Your task to perform on an android device: View the shopping cart on newegg.com. Add logitech g pro to the cart on newegg.com, then select checkout. Image 0: 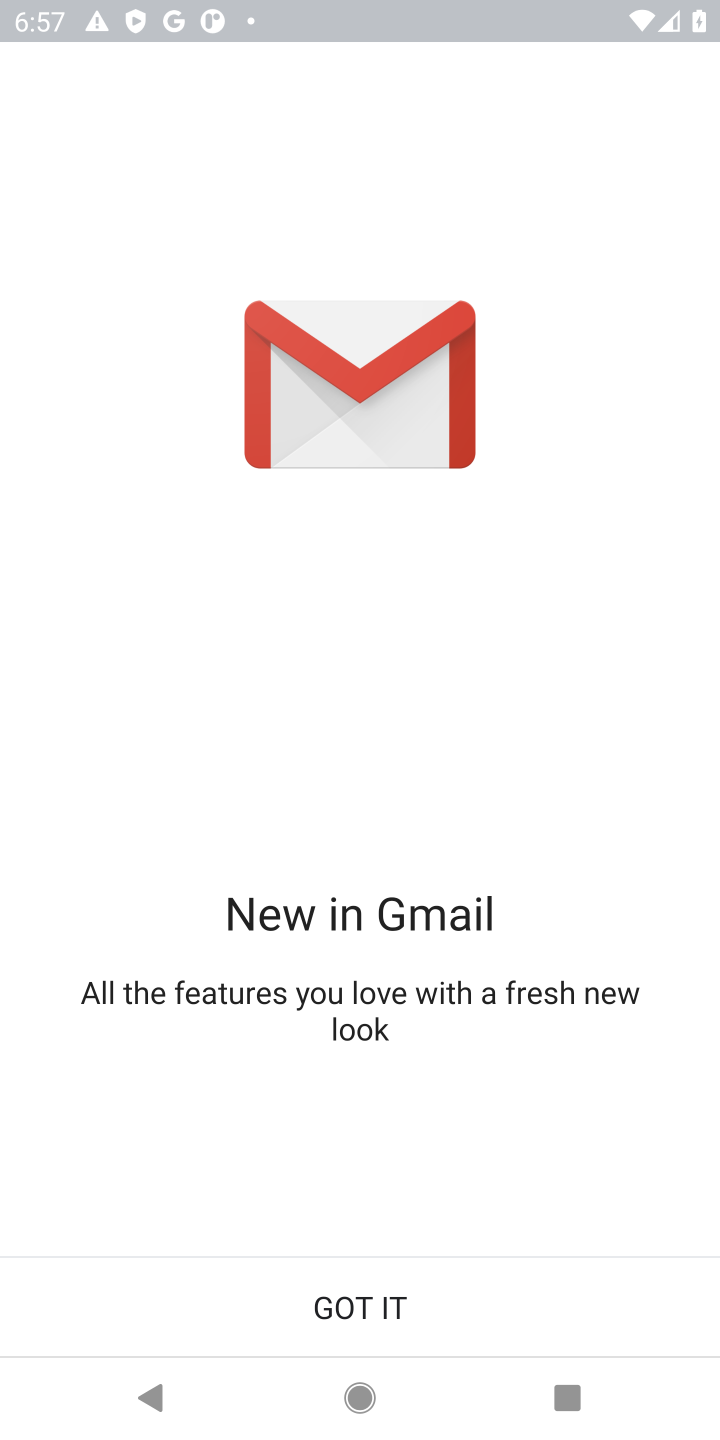
Step 0: press home button
Your task to perform on an android device: View the shopping cart on newegg.com. Add logitech g pro to the cart on newegg.com, then select checkout. Image 1: 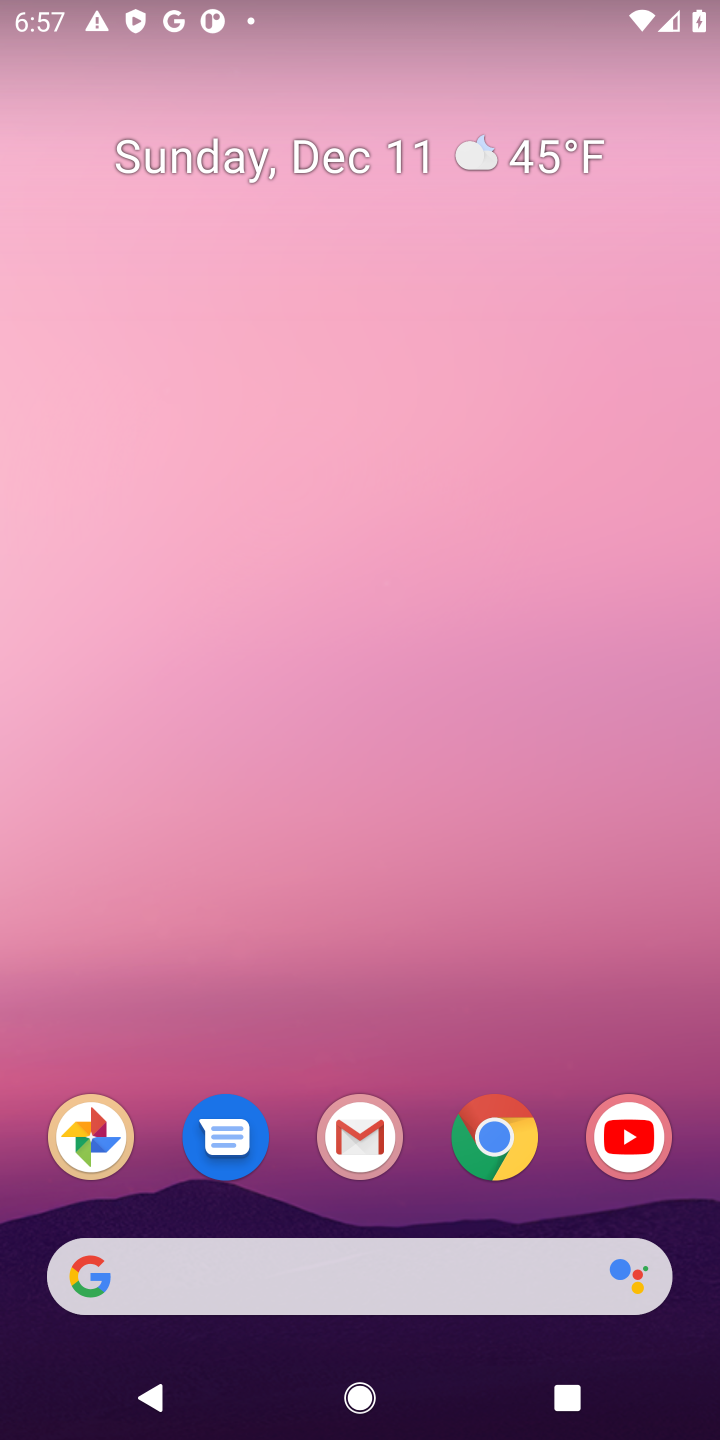
Step 1: click (523, 1144)
Your task to perform on an android device: View the shopping cart on newegg.com. Add logitech g pro to the cart on newegg.com, then select checkout. Image 2: 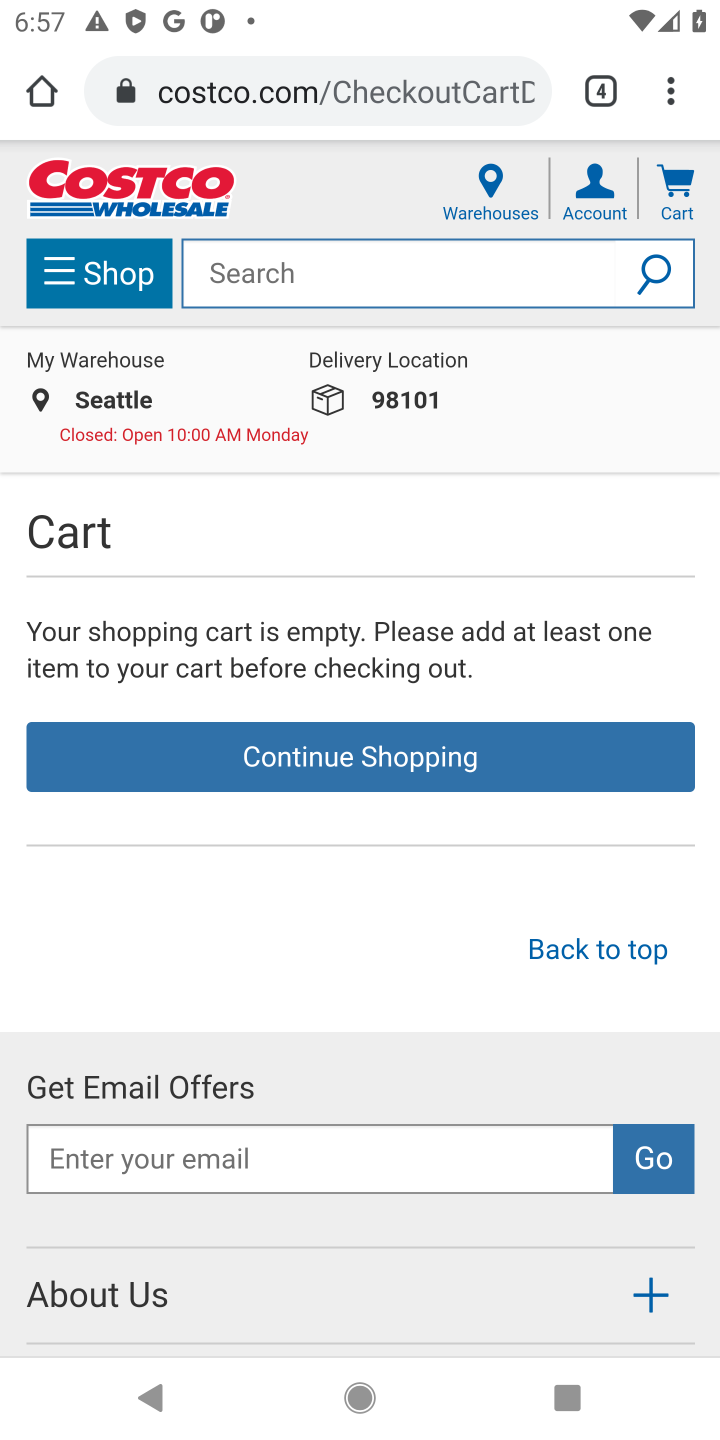
Step 2: click (427, 92)
Your task to perform on an android device: View the shopping cart on newegg.com. Add logitech g pro to the cart on newegg.com, then select checkout. Image 3: 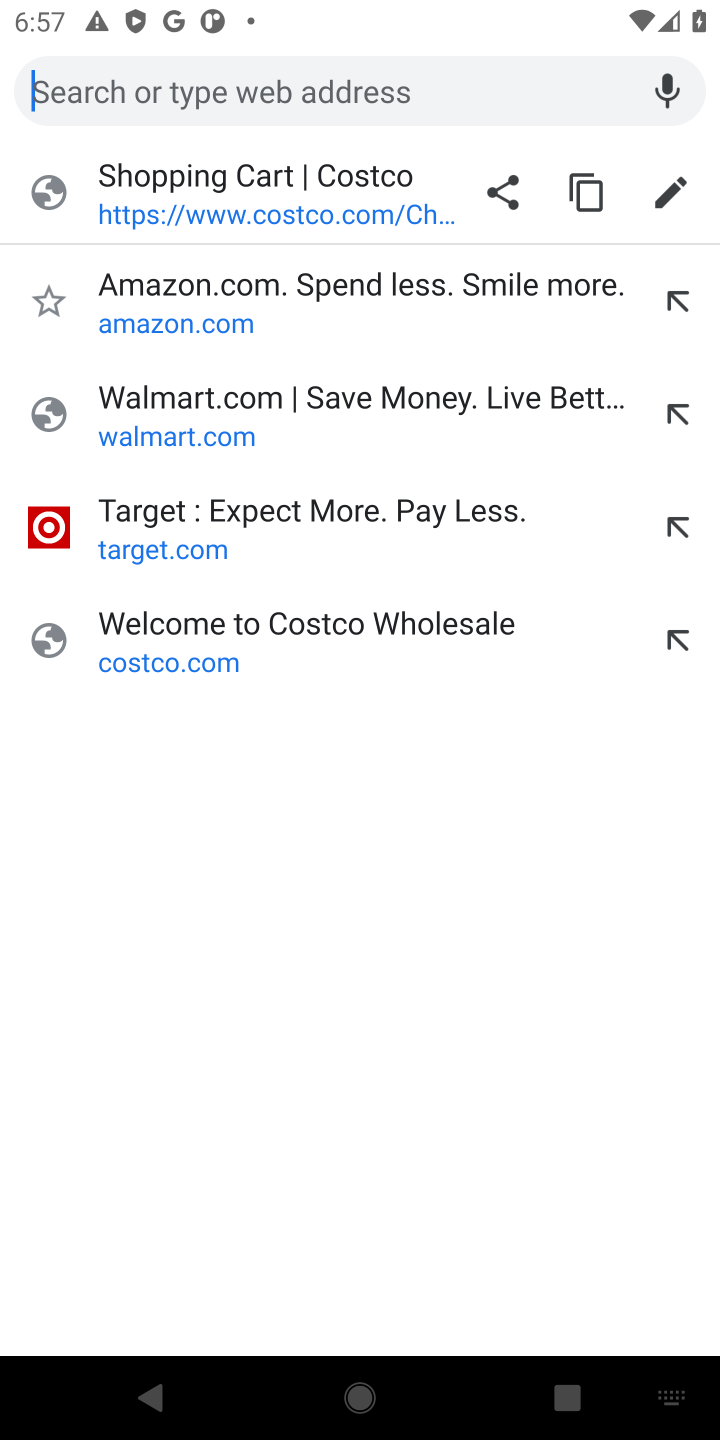
Step 3: click (285, 89)
Your task to perform on an android device: View the shopping cart on newegg.com. Add logitech g pro to the cart on newegg.com, then select checkout. Image 4: 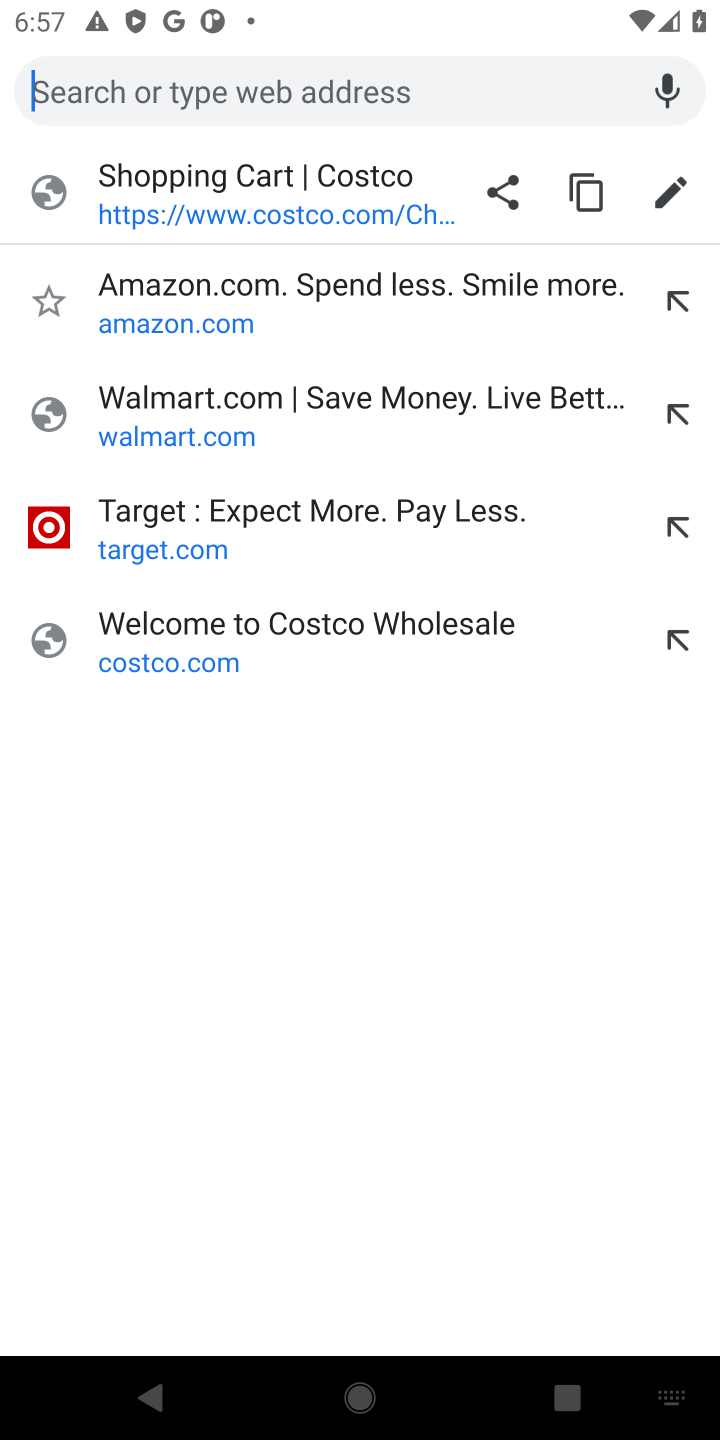
Step 4: type "newegg"
Your task to perform on an android device: View the shopping cart on newegg.com. Add logitech g pro to the cart on newegg.com, then select checkout. Image 5: 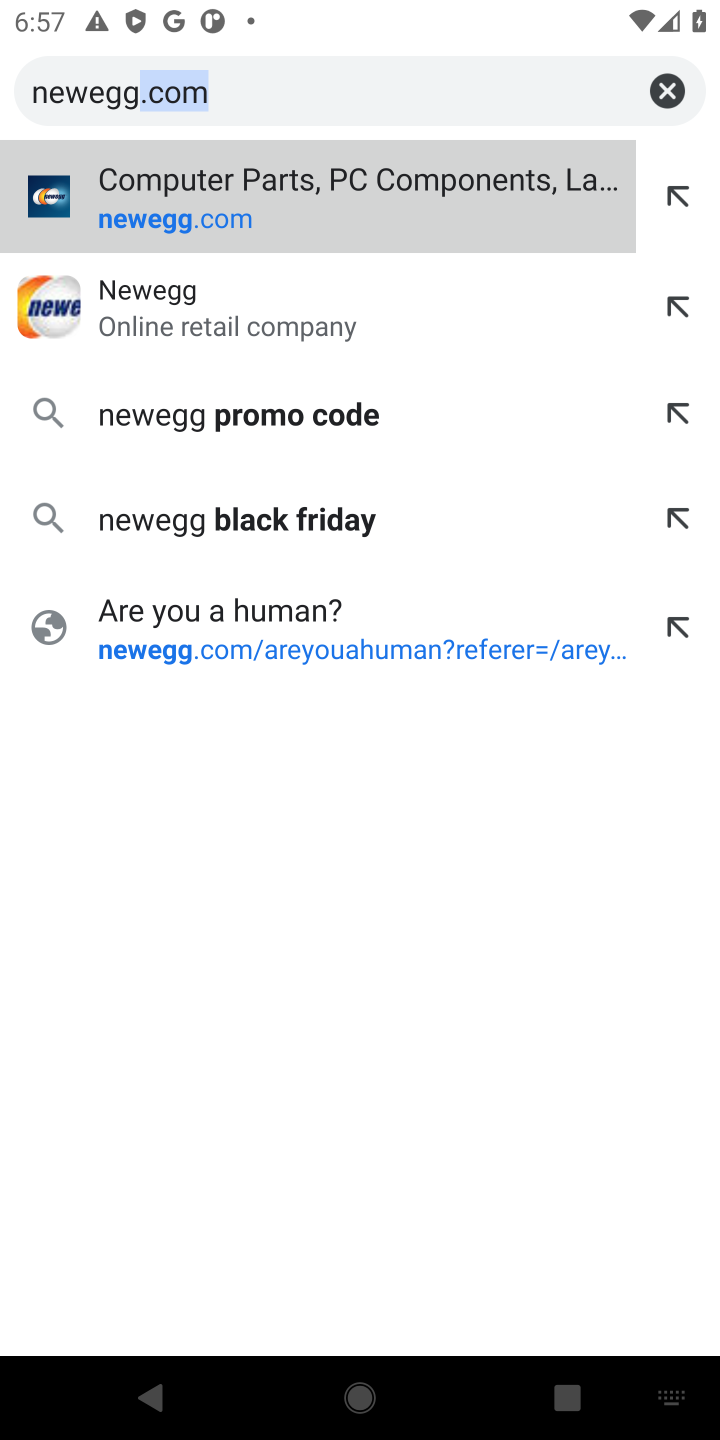
Step 5: click (139, 301)
Your task to perform on an android device: View the shopping cart on newegg.com. Add logitech g pro to the cart on newegg.com, then select checkout. Image 6: 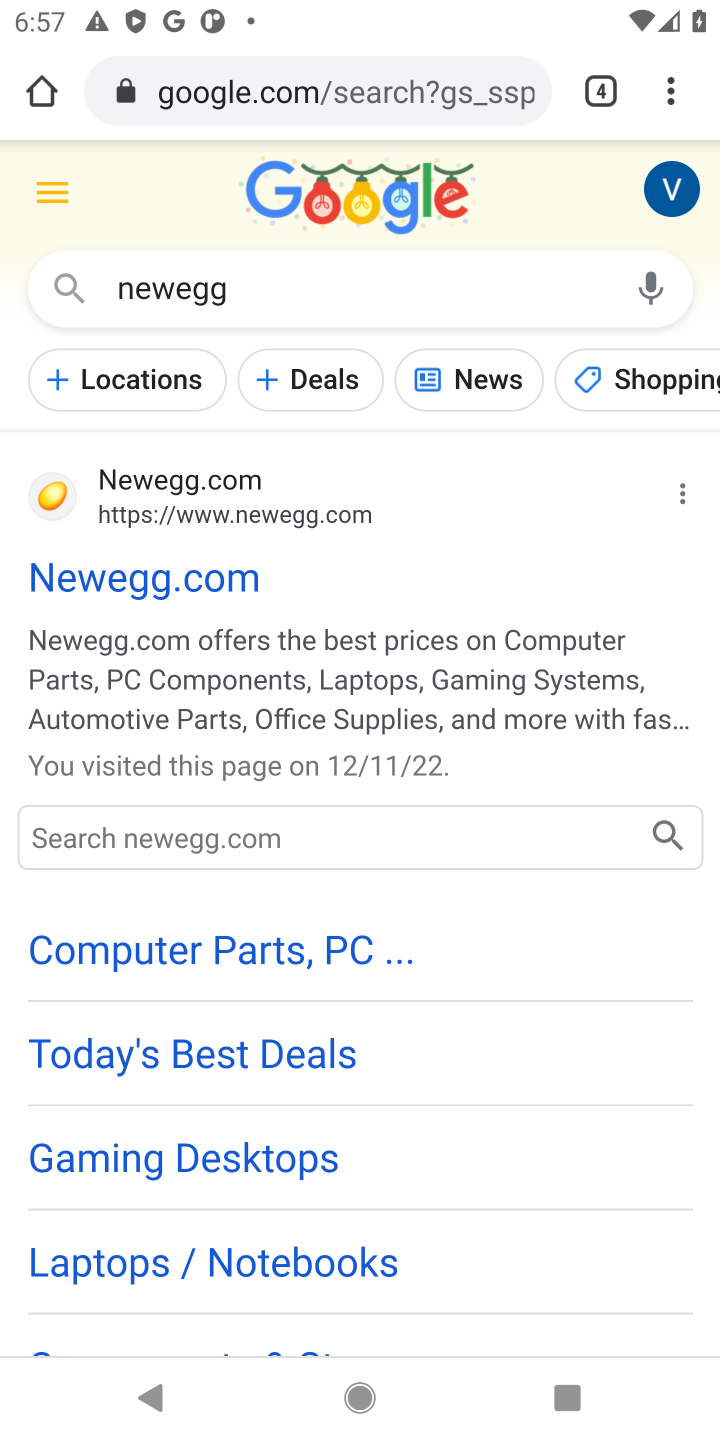
Step 6: click (54, 559)
Your task to perform on an android device: View the shopping cart on newegg.com. Add logitech g pro to the cart on newegg.com, then select checkout. Image 7: 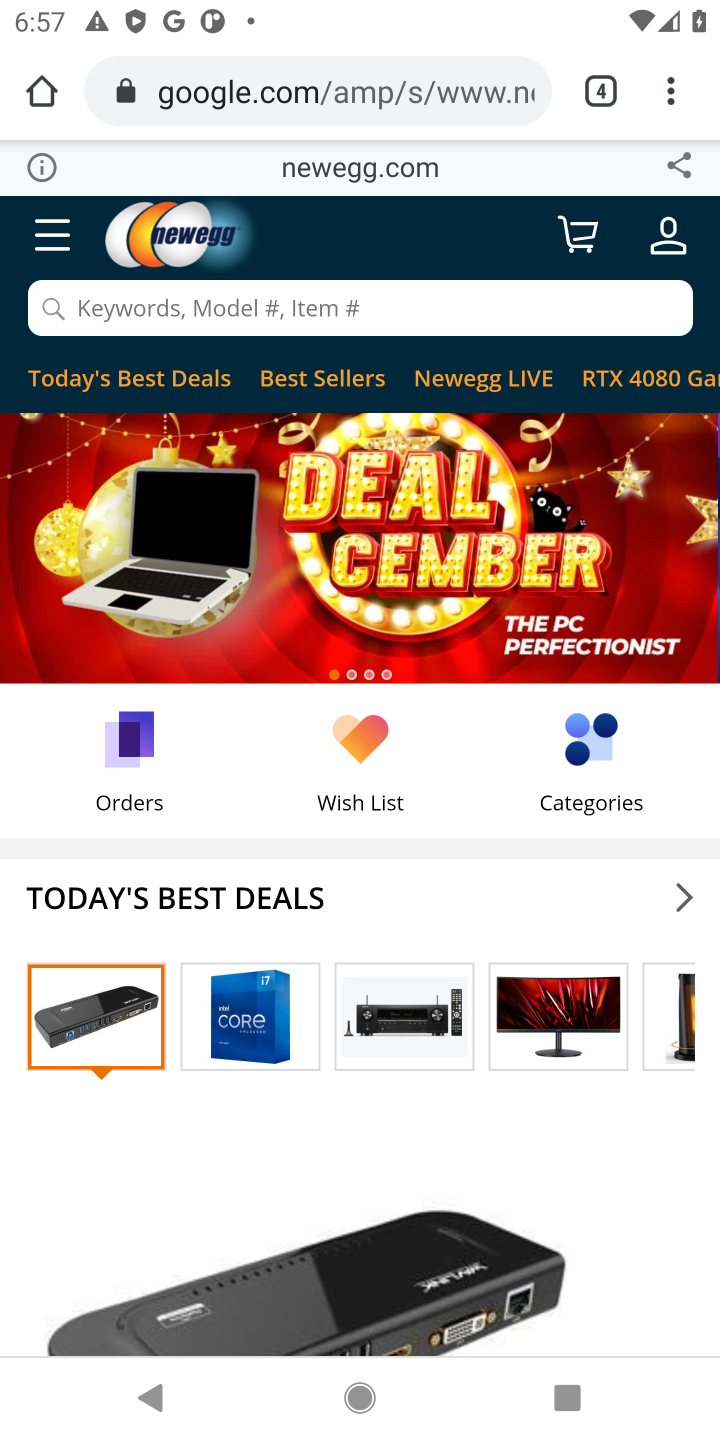
Step 7: click (586, 250)
Your task to perform on an android device: View the shopping cart on newegg.com. Add logitech g pro to the cart on newegg.com, then select checkout. Image 8: 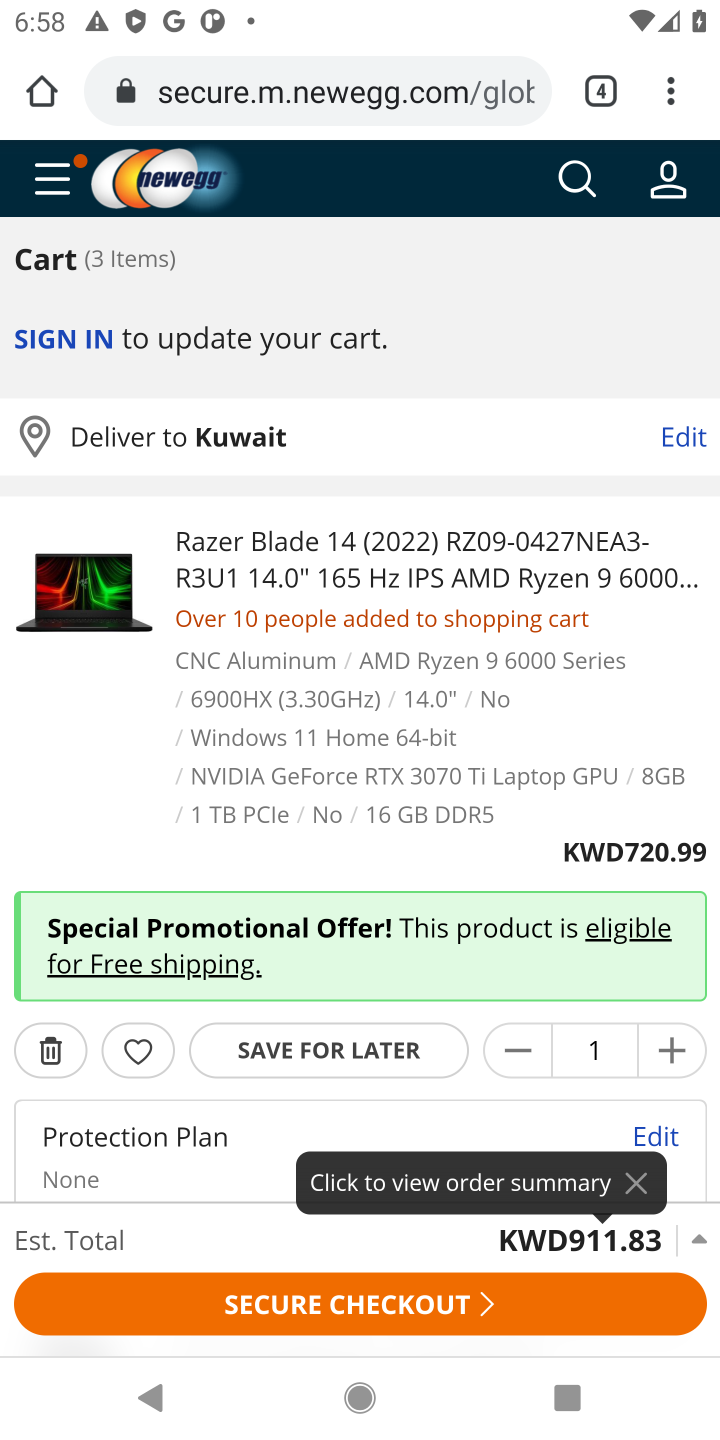
Step 8: click (585, 176)
Your task to perform on an android device: View the shopping cart on newegg.com. Add logitech g pro to the cart on newegg.com, then select checkout. Image 9: 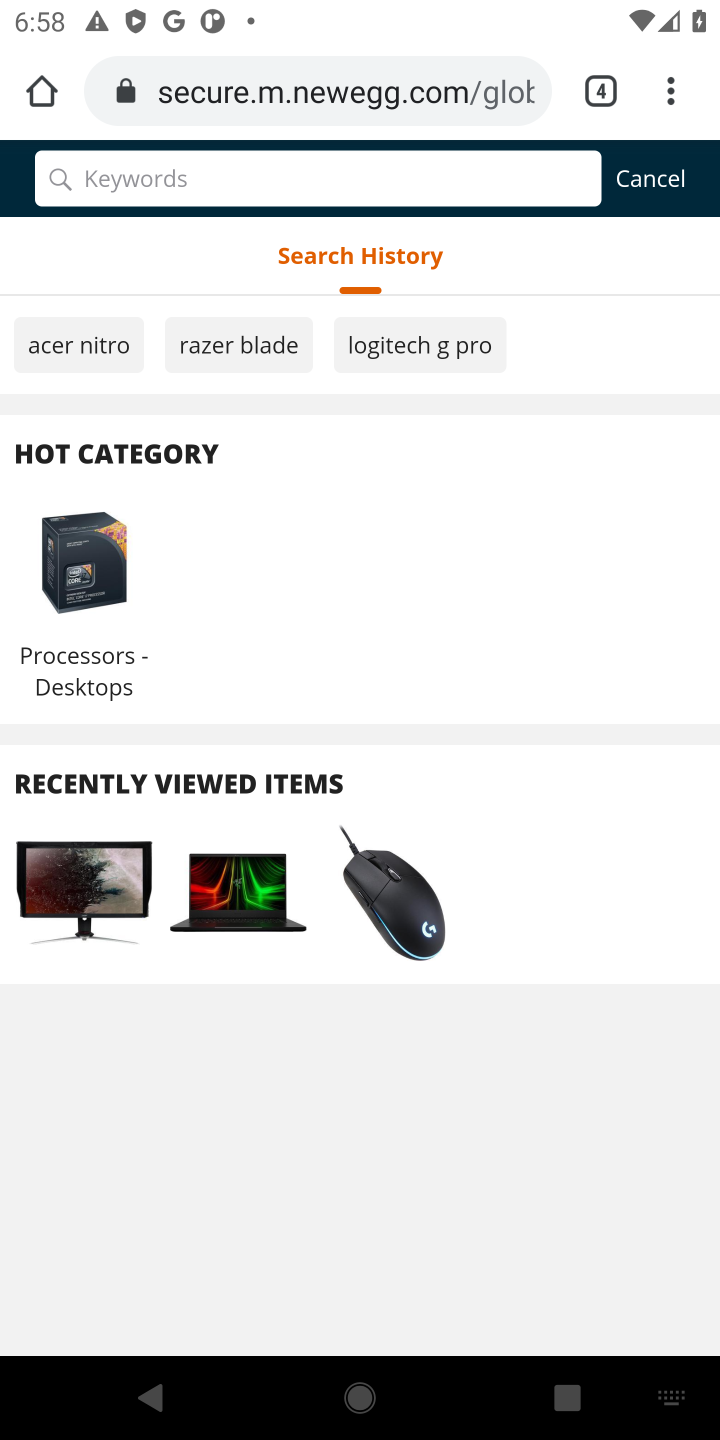
Step 9: type "logitech g pro"
Your task to perform on an android device: View the shopping cart on newegg.com. Add logitech g pro to the cart on newegg.com, then select checkout. Image 10: 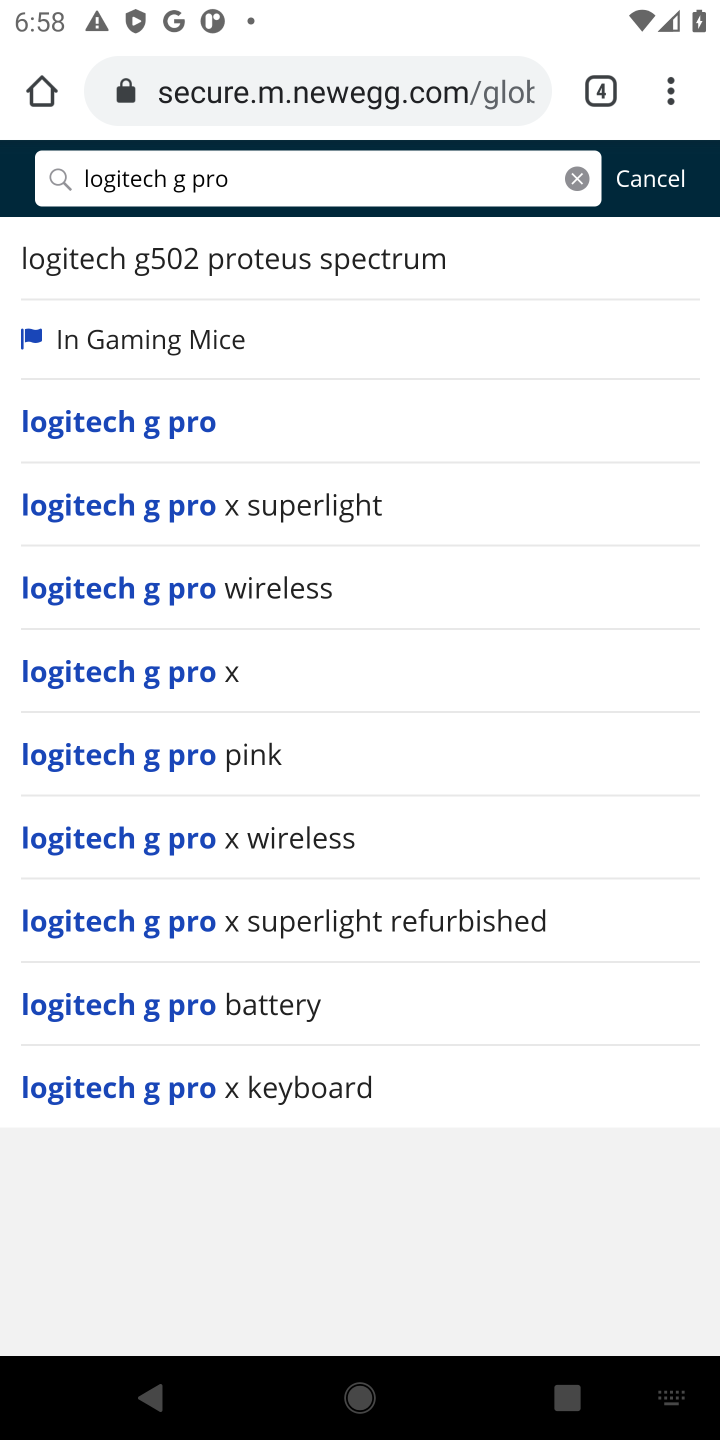
Step 10: click (109, 427)
Your task to perform on an android device: View the shopping cart on newegg.com. Add logitech g pro to the cart on newegg.com, then select checkout. Image 11: 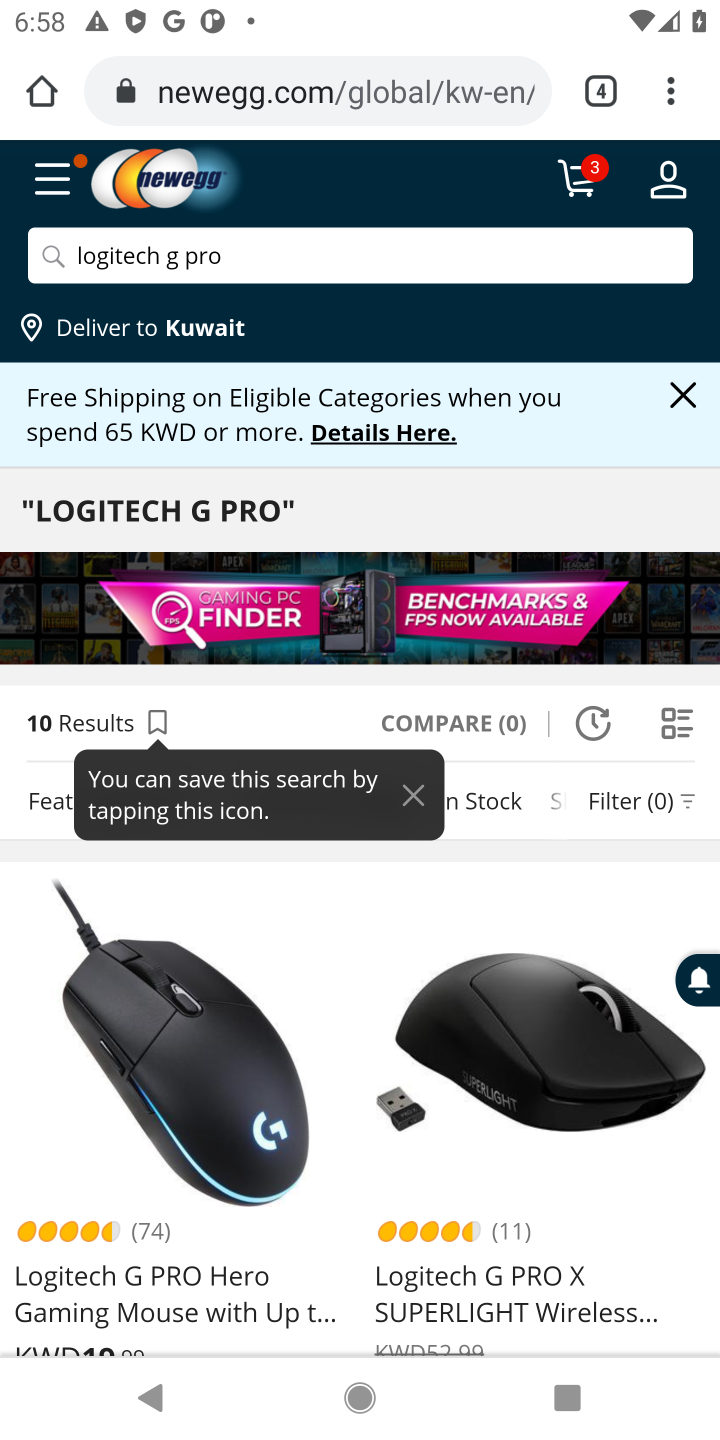
Step 11: click (125, 1182)
Your task to perform on an android device: View the shopping cart on newegg.com. Add logitech g pro to the cart on newegg.com, then select checkout. Image 12: 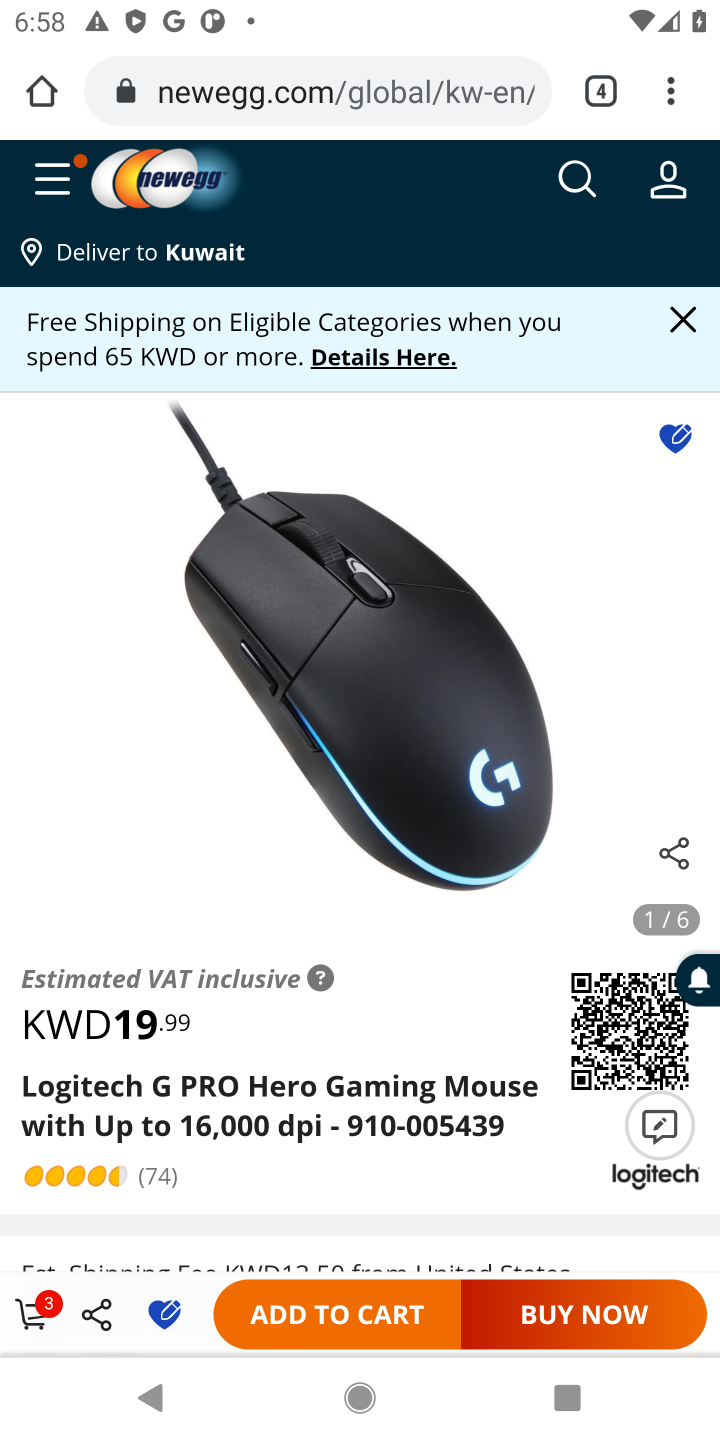
Step 12: click (358, 1304)
Your task to perform on an android device: View the shopping cart on newegg.com. Add logitech g pro to the cart on newegg.com, then select checkout. Image 13: 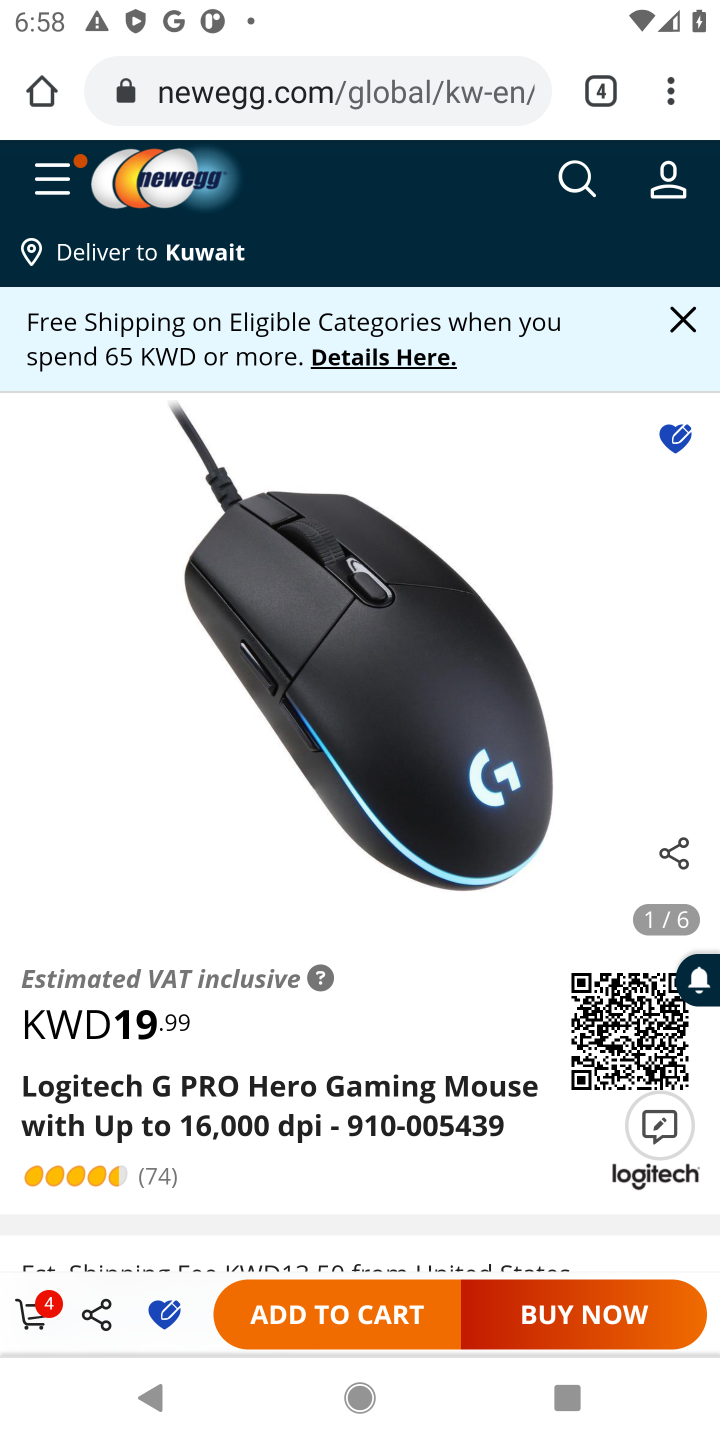
Step 13: click (43, 1305)
Your task to perform on an android device: View the shopping cart on newegg.com. Add logitech g pro to the cart on newegg.com, then select checkout. Image 14: 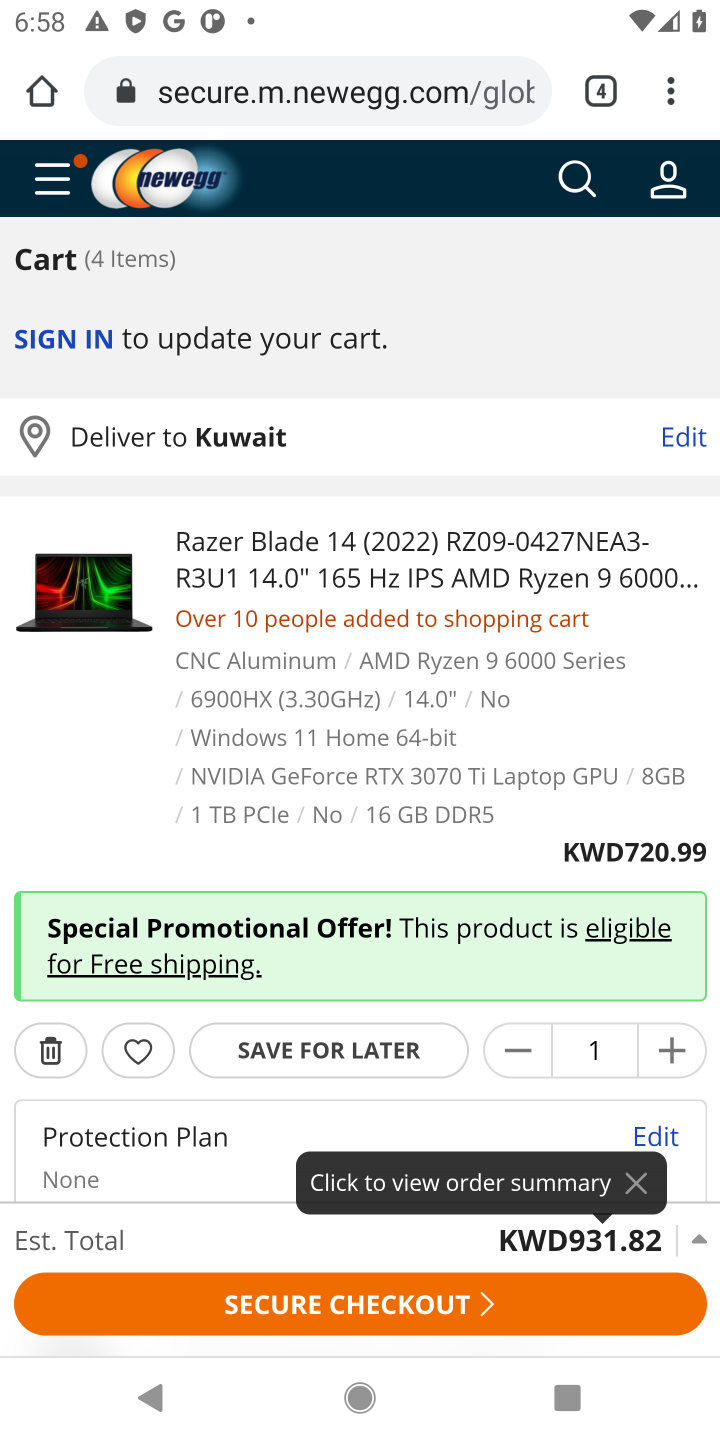
Step 14: click (245, 1313)
Your task to perform on an android device: View the shopping cart on newegg.com. Add logitech g pro to the cart on newegg.com, then select checkout. Image 15: 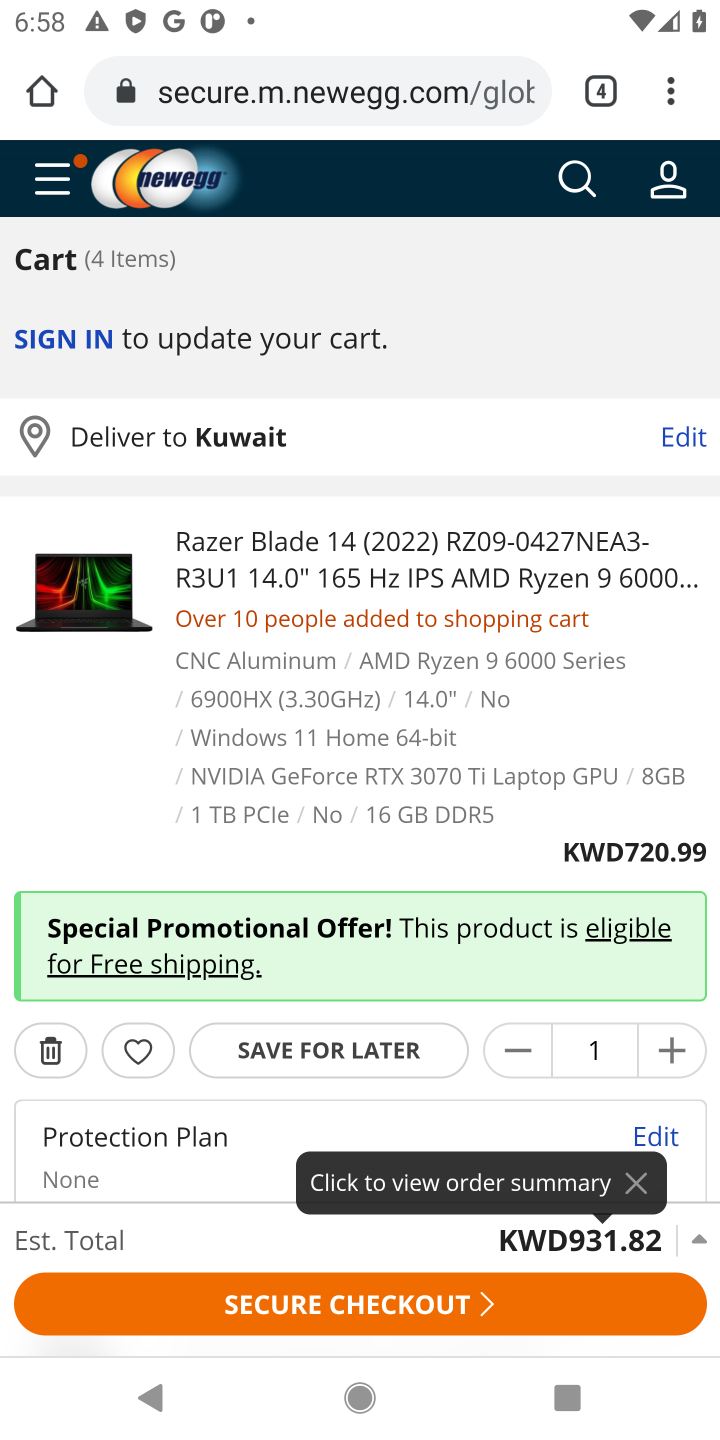
Step 15: click (280, 1299)
Your task to perform on an android device: View the shopping cart on newegg.com. Add logitech g pro to the cart on newegg.com, then select checkout. Image 16: 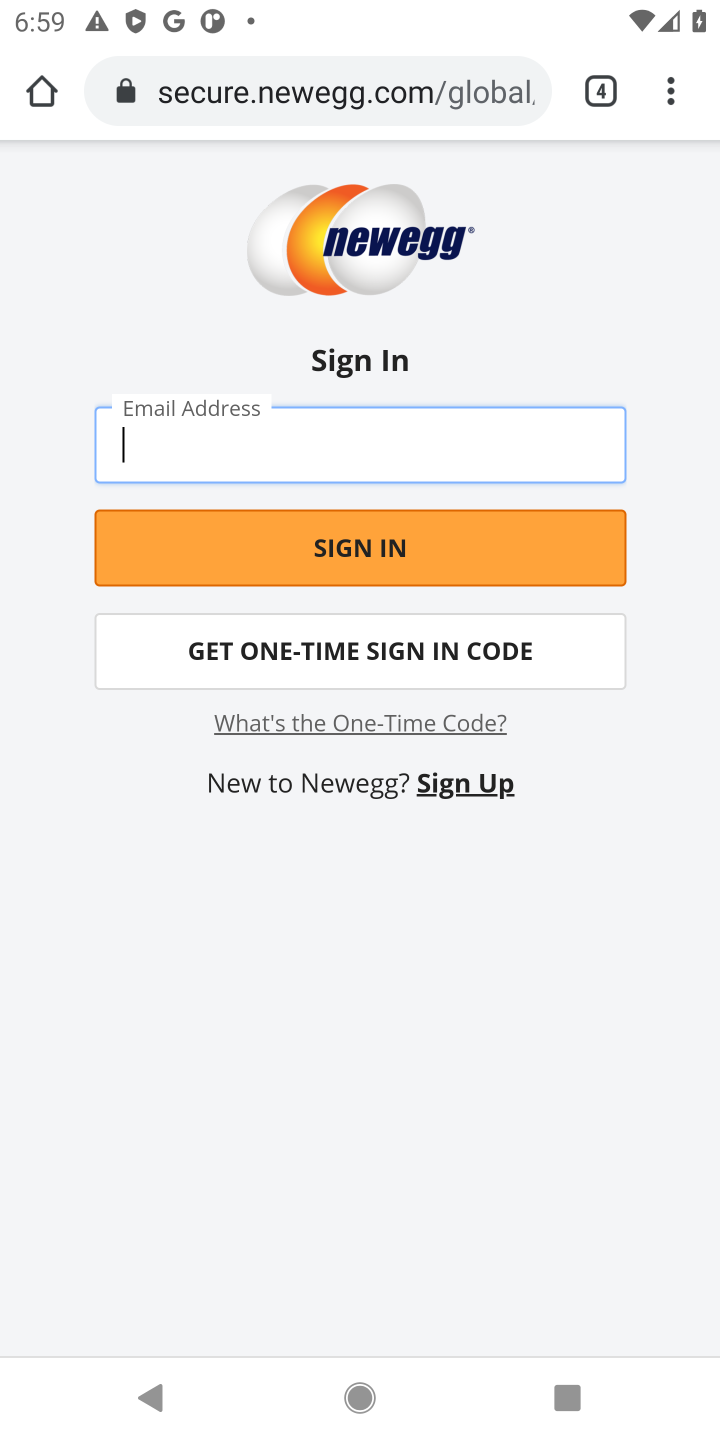
Step 16: task complete